Your task to perform on an android device: Open calendar and show me the first week of next month Image 0: 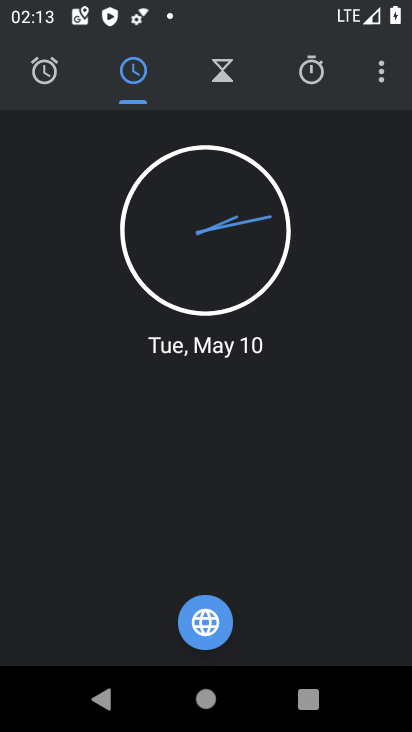
Step 0: press home button
Your task to perform on an android device: Open calendar and show me the first week of next month Image 1: 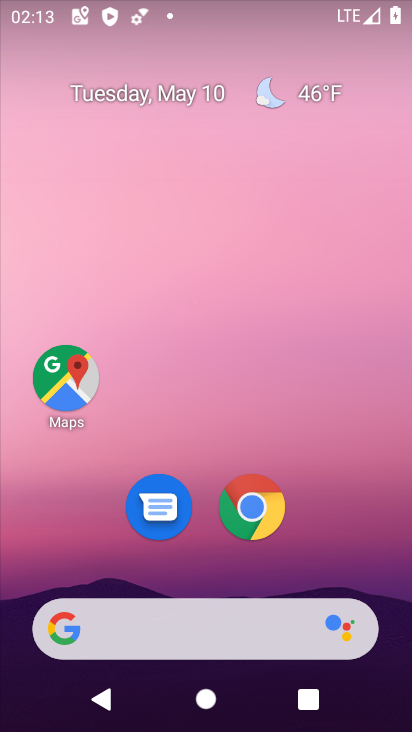
Step 1: drag from (230, 665) to (253, 252)
Your task to perform on an android device: Open calendar and show me the first week of next month Image 2: 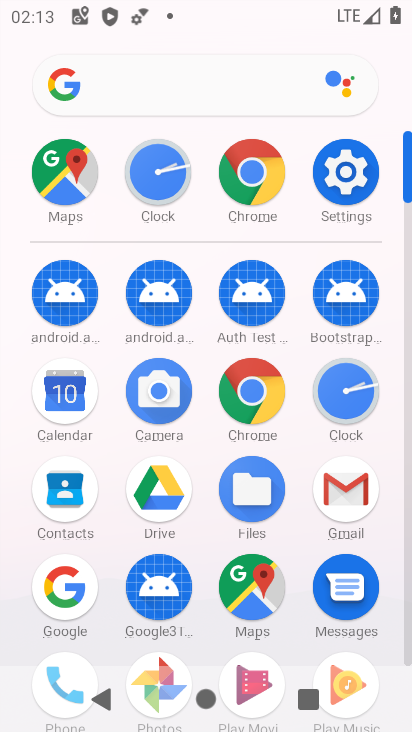
Step 2: click (41, 406)
Your task to perform on an android device: Open calendar and show me the first week of next month Image 3: 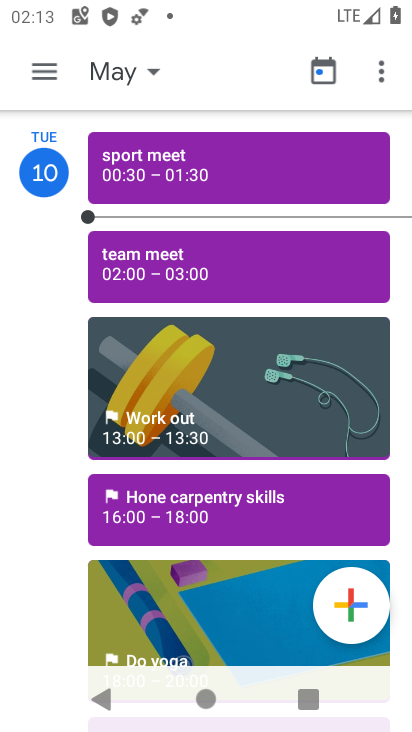
Step 3: click (41, 73)
Your task to perform on an android device: Open calendar and show me the first week of next month Image 4: 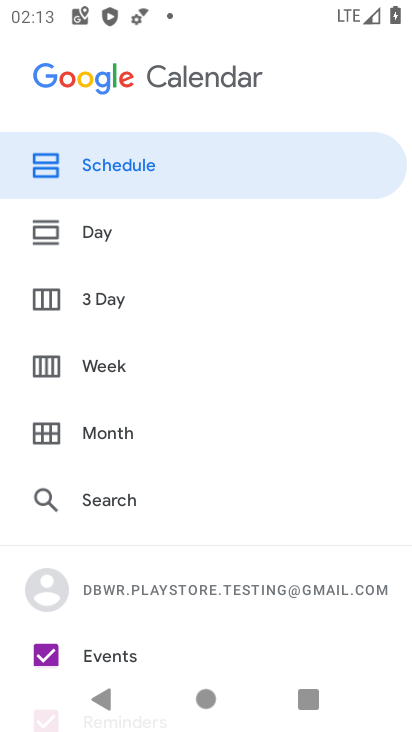
Step 4: click (118, 436)
Your task to perform on an android device: Open calendar and show me the first week of next month Image 5: 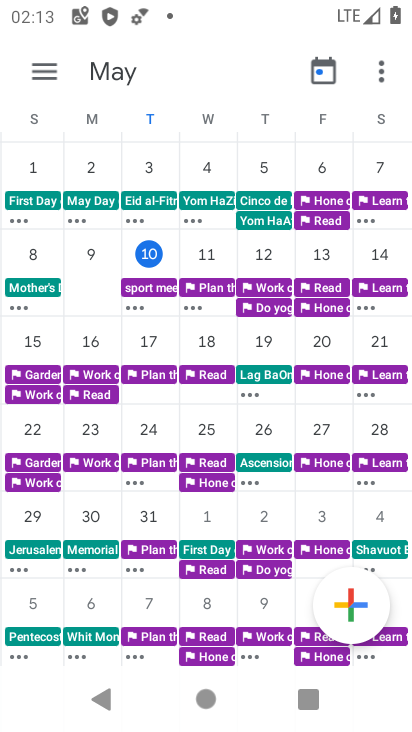
Step 5: drag from (397, 453) to (0, 494)
Your task to perform on an android device: Open calendar and show me the first week of next month Image 6: 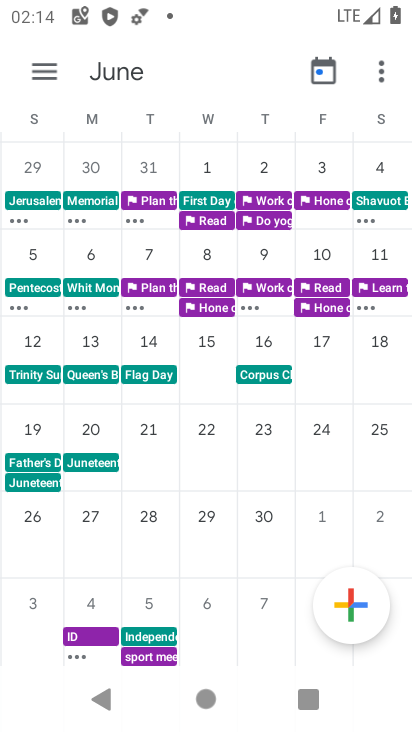
Step 6: click (206, 187)
Your task to perform on an android device: Open calendar and show me the first week of next month Image 7: 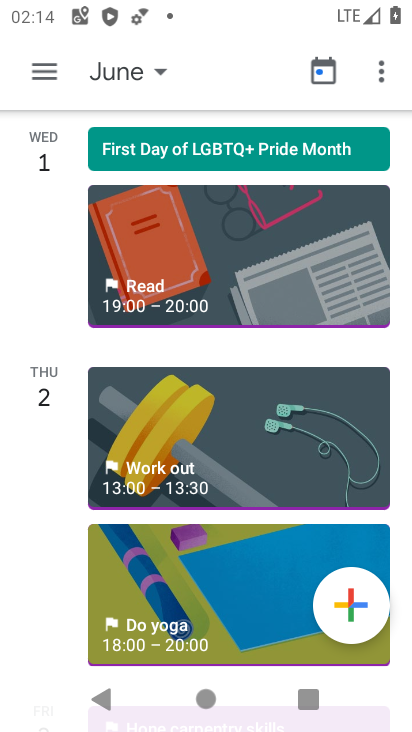
Step 7: task complete